Your task to perform on an android device: toggle airplane mode Image 0: 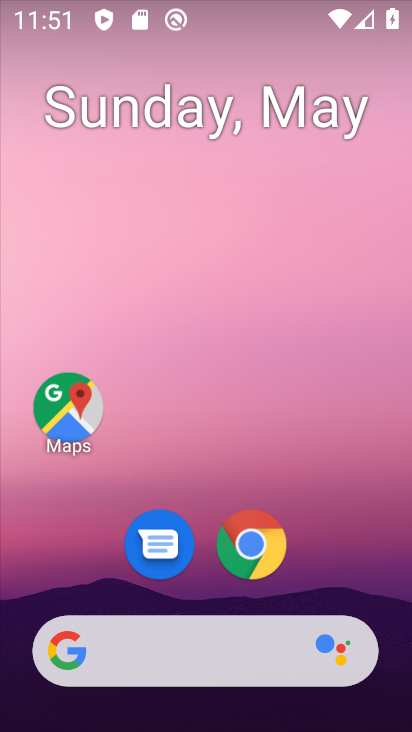
Step 0: drag from (321, 637) to (267, 2)
Your task to perform on an android device: toggle airplane mode Image 1: 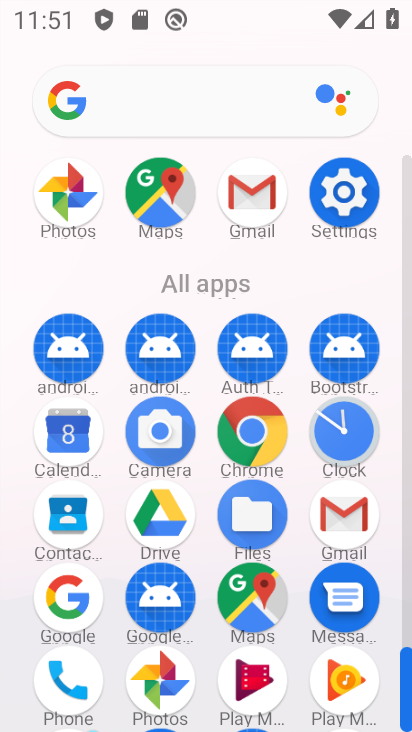
Step 1: click (355, 195)
Your task to perform on an android device: toggle airplane mode Image 2: 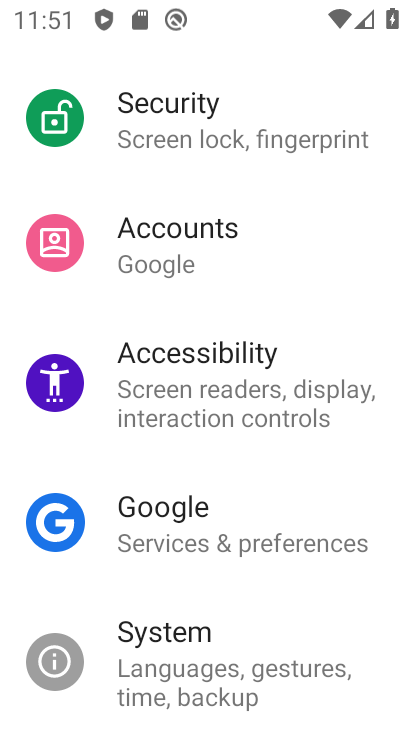
Step 2: drag from (259, 194) to (228, 716)
Your task to perform on an android device: toggle airplane mode Image 3: 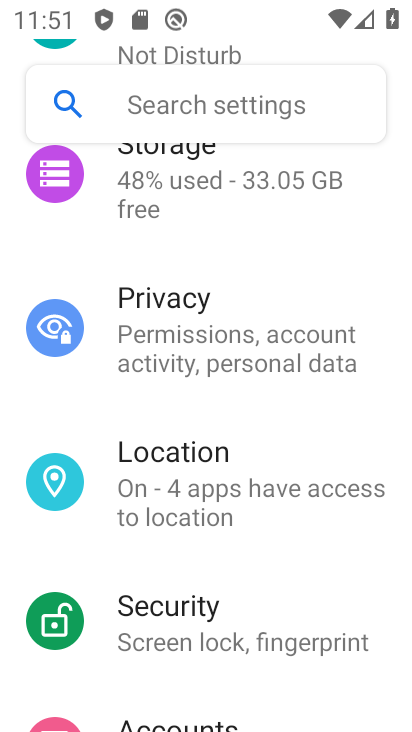
Step 3: drag from (215, 240) to (237, 722)
Your task to perform on an android device: toggle airplane mode Image 4: 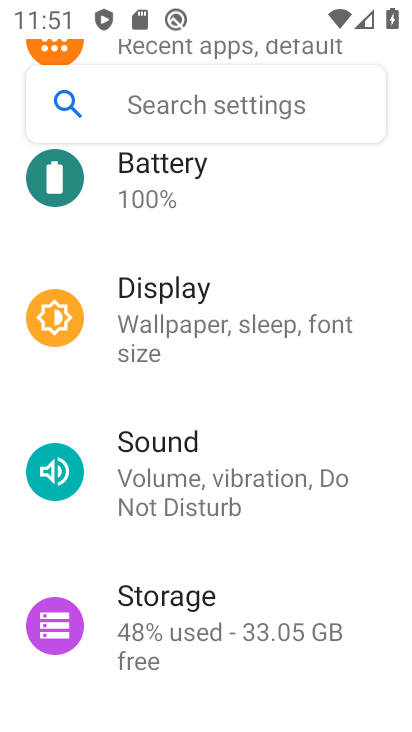
Step 4: drag from (210, 208) to (243, 730)
Your task to perform on an android device: toggle airplane mode Image 5: 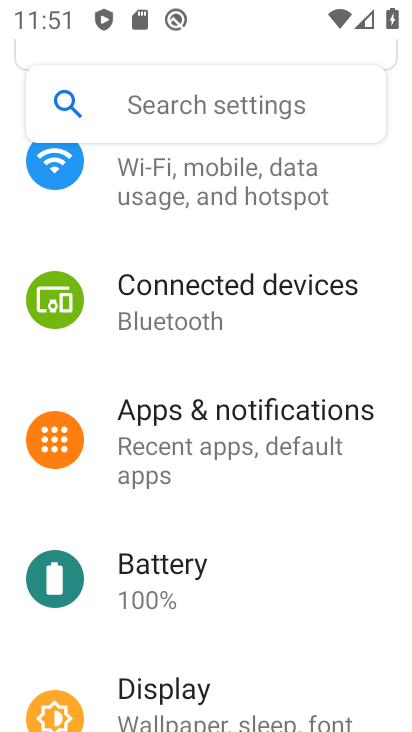
Step 5: drag from (230, 253) to (257, 642)
Your task to perform on an android device: toggle airplane mode Image 6: 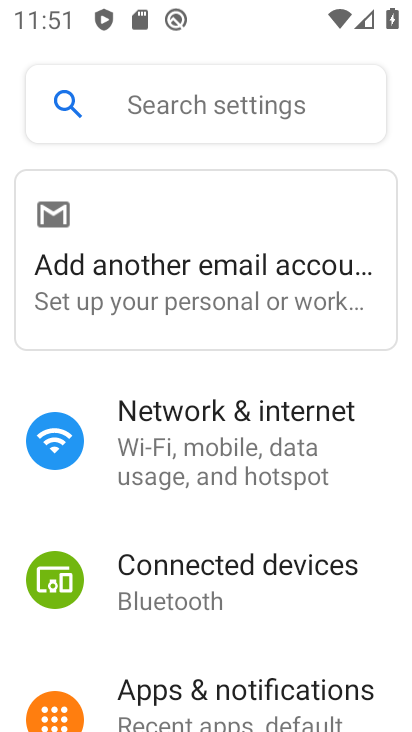
Step 6: click (218, 435)
Your task to perform on an android device: toggle airplane mode Image 7: 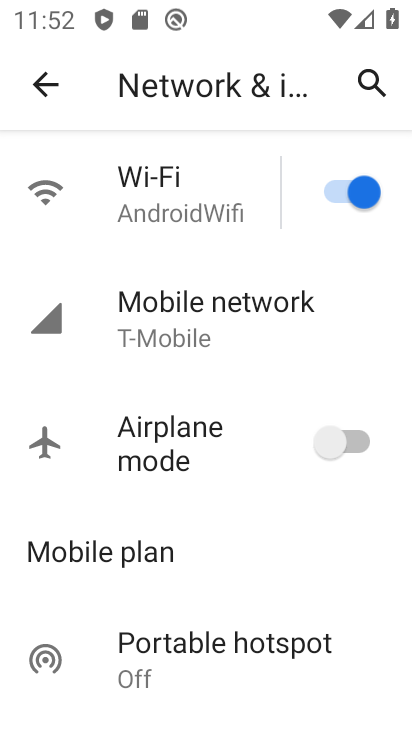
Step 7: click (349, 439)
Your task to perform on an android device: toggle airplane mode Image 8: 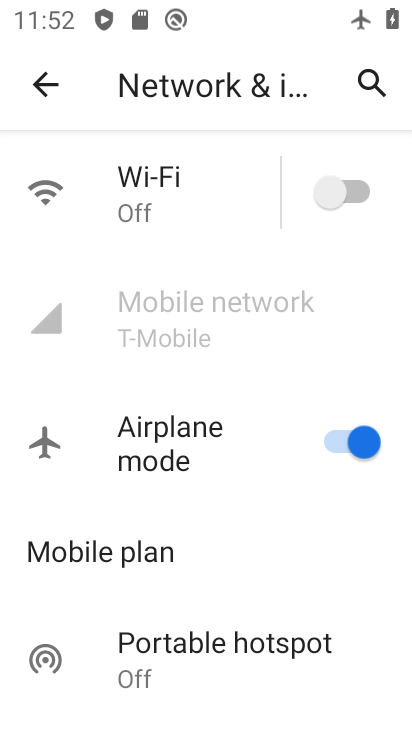
Step 8: task complete